Your task to perform on an android device: turn on wifi Image 0: 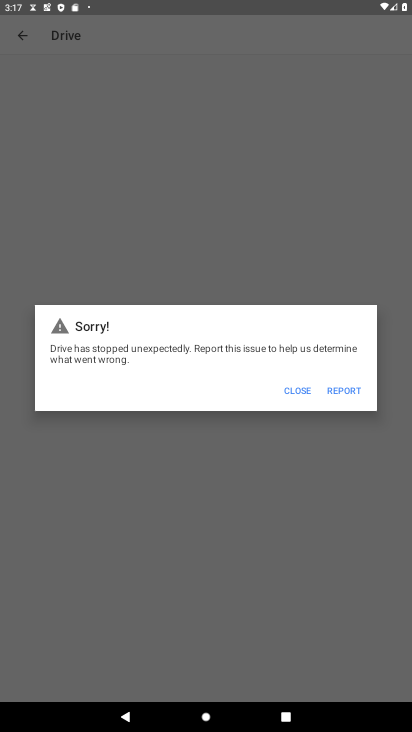
Step 0: press home button
Your task to perform on an android device: turn on wifi Image 1: 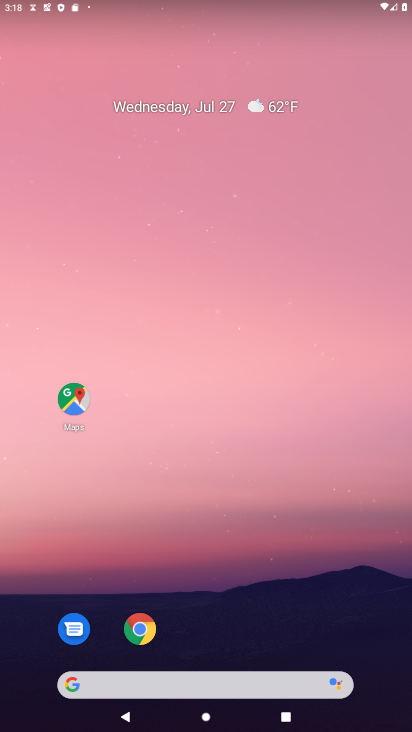
Step 1: drag from (195, 681) to (221, 51)
Your task to perform on an android device: turn on wifi Image 2: 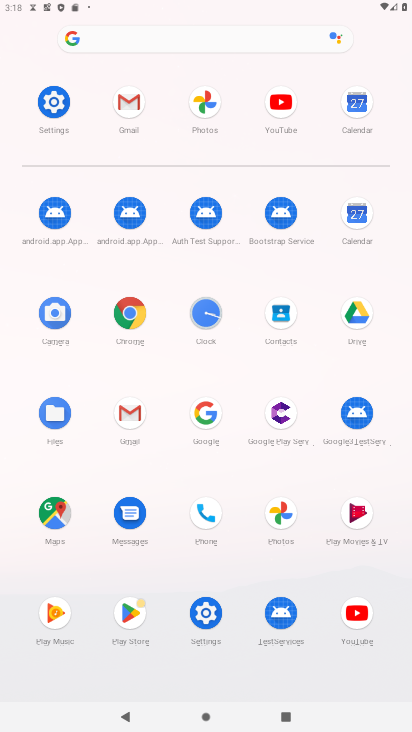
Step 2: click (53, 101)
Your task to perform on an android device: turn on wifi Image 3: 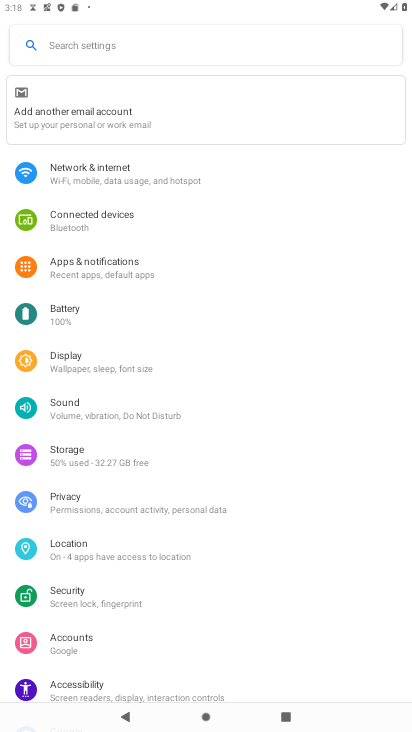
Step 3: click (106, 178)
Your task to perform on an android device: turn on wifi Image 4: 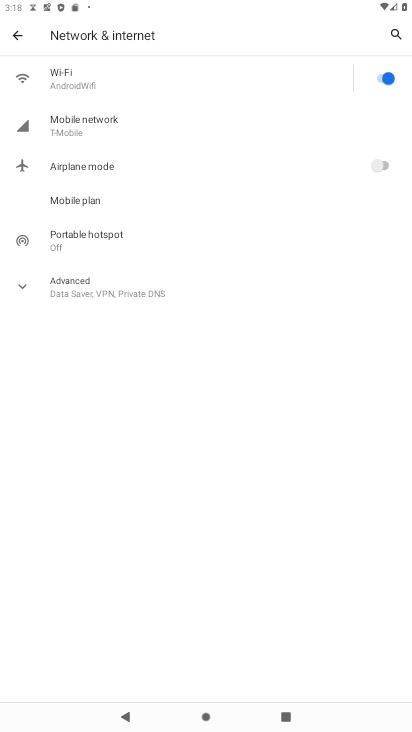
Step 4: task complete